Your task to perform on an android device: turn on notifications settings in the gmail app Image 0: 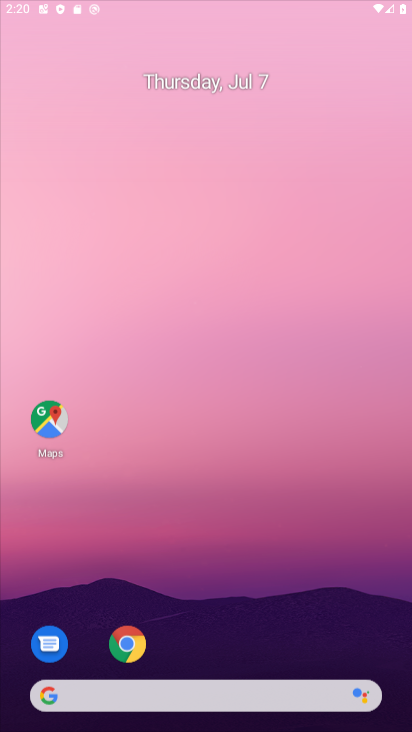
Step 0: press home button
Your task to perform on an android device: turn on notifications settings in the gmail app Image 1: 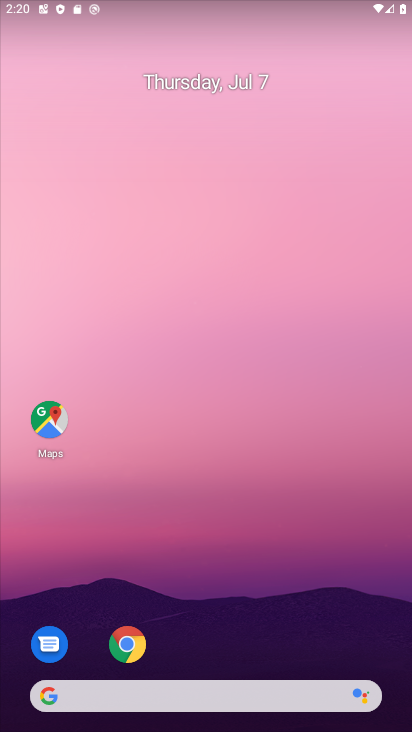
Step 1: drag from (281, 646) to (406, 0)
Your task to perform on an android device: turn on notifications settings in the gmail app Image 2: 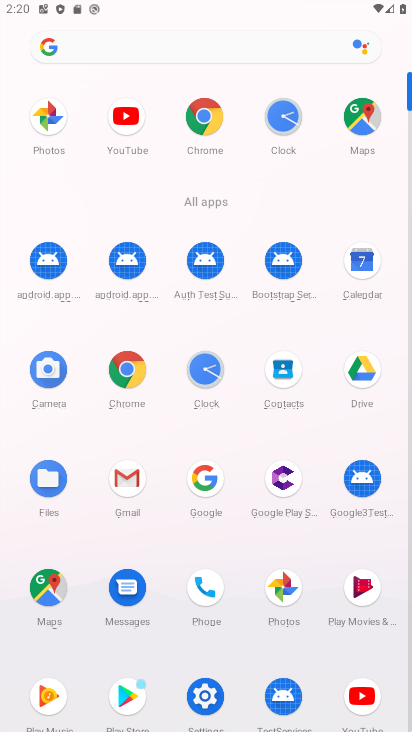
Step 2: click (132, 483)
Your task to perform on an android device: turn on notifications settings in the gmail app Image 3: 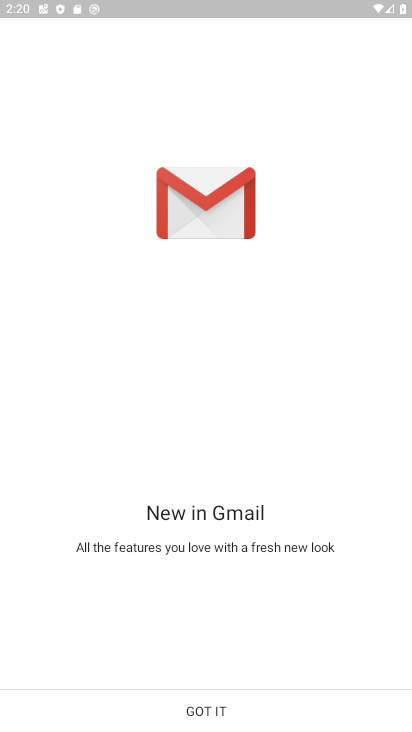
Step 3: click (185, 716)
Your task to perform on an android device: turn on notifications settings in the gmail app Image 4: 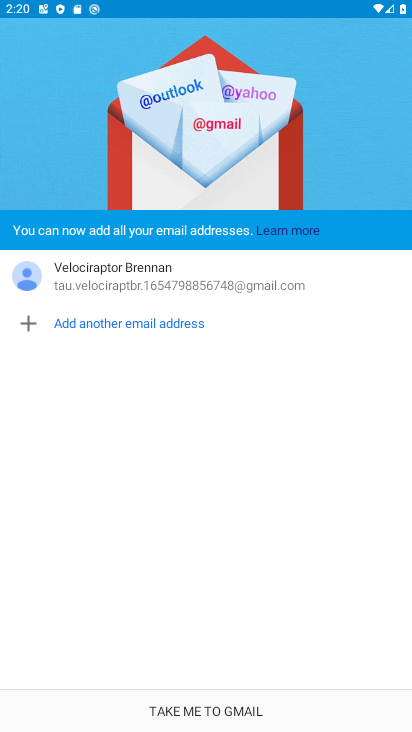
Step 4: click (220, 704)
Your task to perform on an android device: turn on notifications settings in the gmail app Image 5: 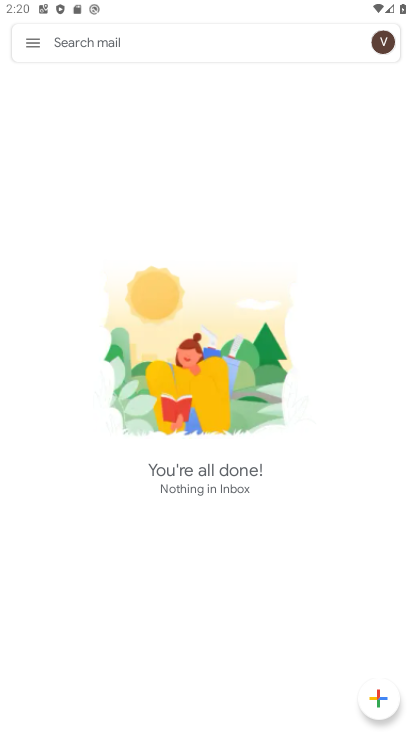
Step 5: click (26, 48)
Your task to perform on an android device: turn on notifications settings in the gmail app Image 6: 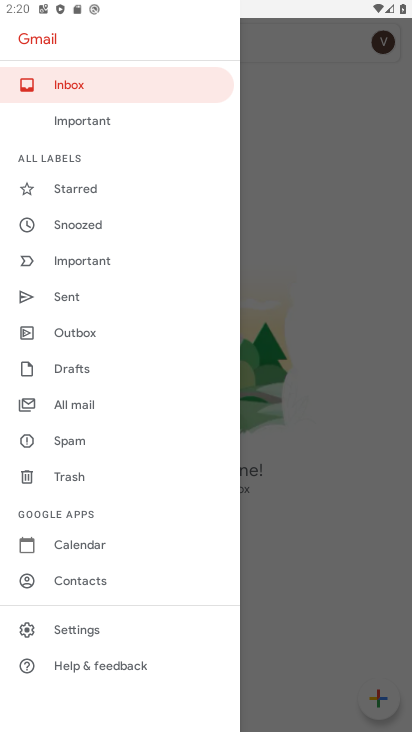
Step 6: click (73, 627)
Your task to perform on an android device: turn on notifications settings in the gmail app Image 7: 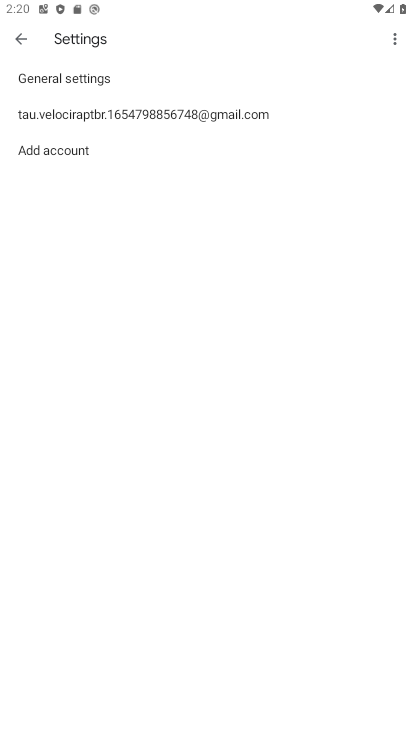
Step 7: click (65, 80)
Your task to perform on an android device: turn on notifications settings in the gmail app Image 8: 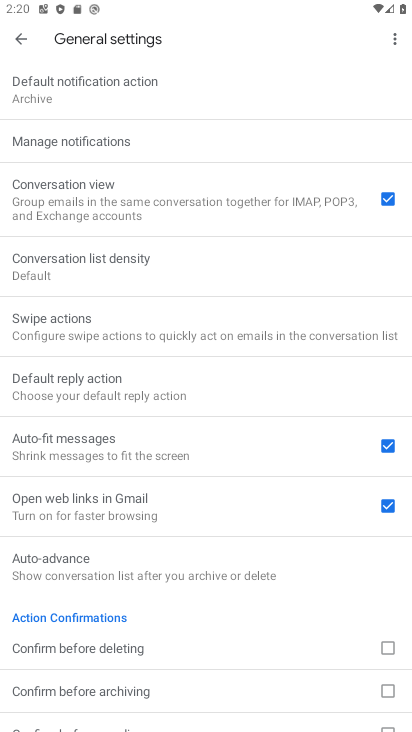
Step 8: click (53, 143)
Your task to perform on an android device: turn on notifications settings in the gmail app Image 9: 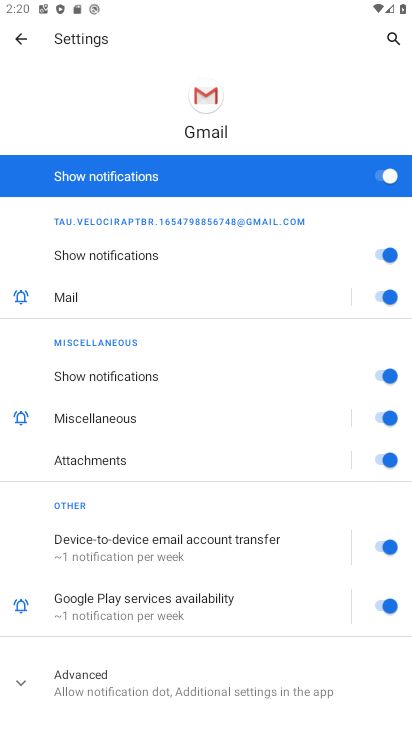
Step 9: task complete